Your task to perform on an android device: Open the web browser Image 0: 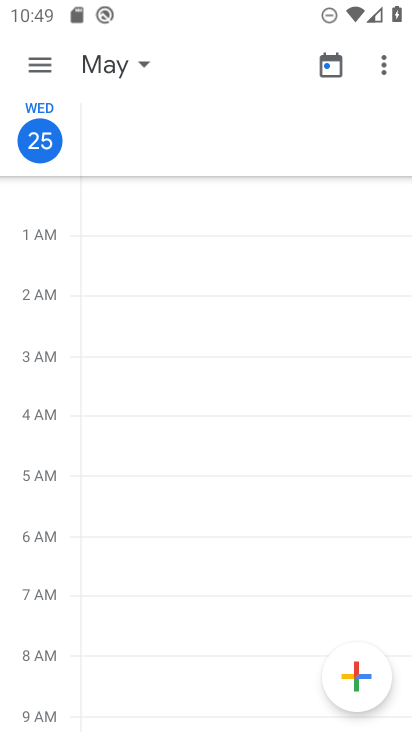
Step 0: press home button
Your task to perform on an android device: Open the web browser Image 1: 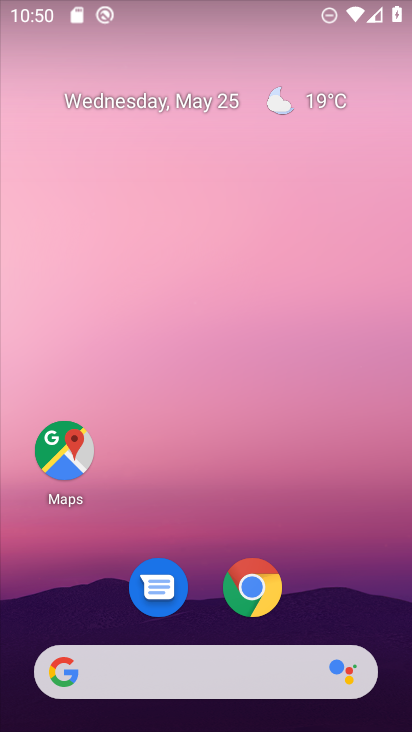
Step 1: click (249, 589)
Your task to perform on an android device: Open the web browser Image 2: 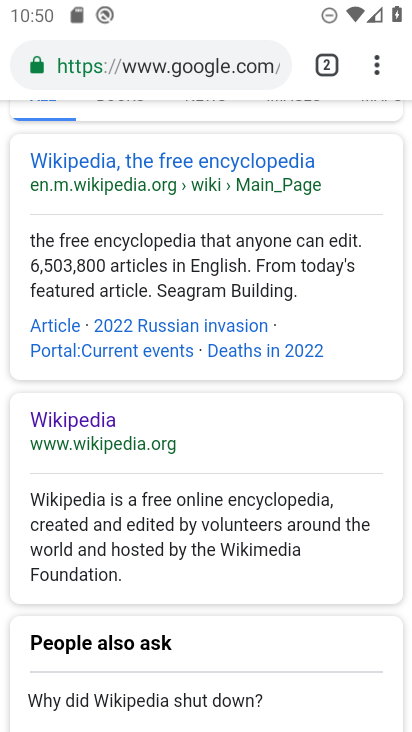
Step 2: click (261, 63)
Your task to perform on an android device: Open the web browser Image 3: 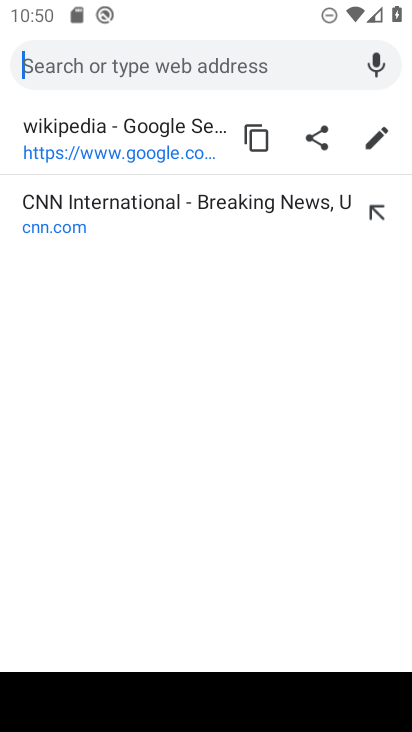
Step 3: task complete